Your task to perform on an android device: turn on bluetooth scan Image 0: 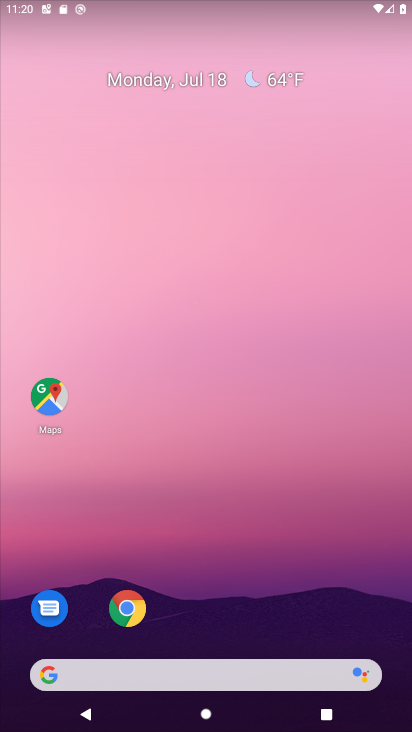
Step 0: drag from (244, 505) to (215, 32)
Your task to perform on an android device: turn on bluetooth scan Image 1: 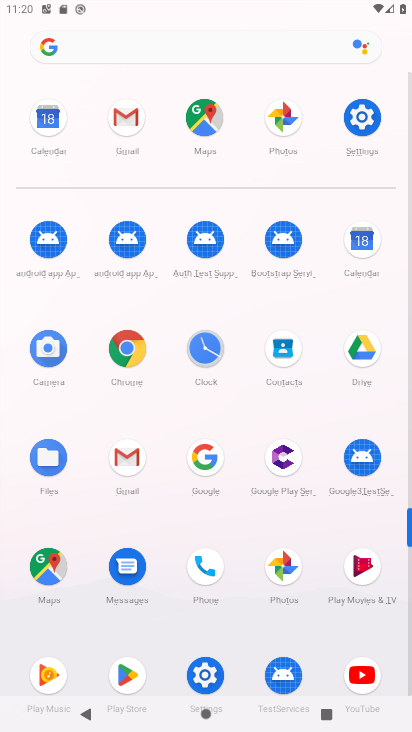
Step 1: click (363, 119)
Your task to perform on an android device: turn on bluetooth scan Image 2: 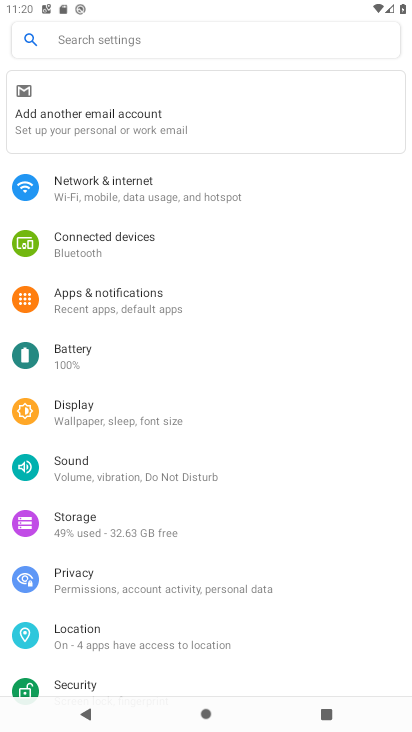
Step 2: click (114, 628)
Your task to perform on an android device: turn on bluetooth scan Image 3: 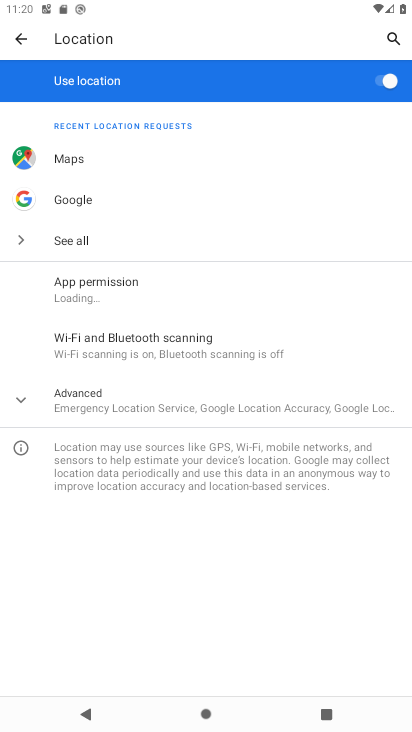
Step 3: click (180, 355)
Your task to perform on an android device: turn on bluetooth scan Image 4: 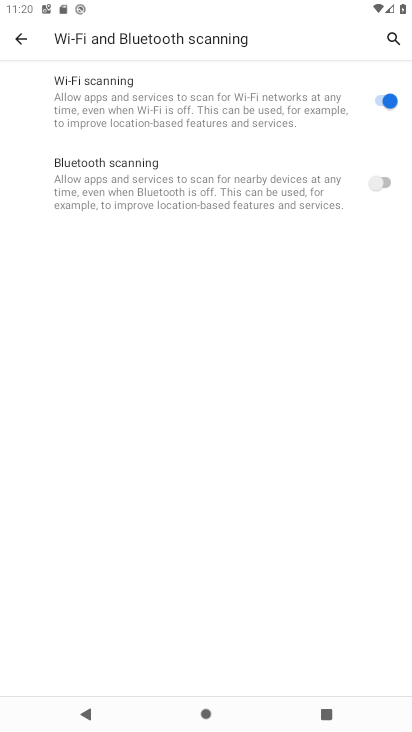
Step 4: click (374, 187)
Your task to perform on an android device: turn on bluetooth scan Image 5: 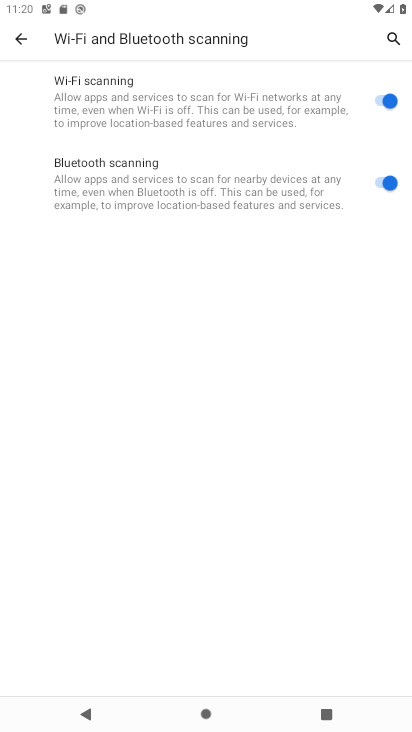
Step 5: task complete